Your task to perform on an android device: Go to Android settings Image 0: 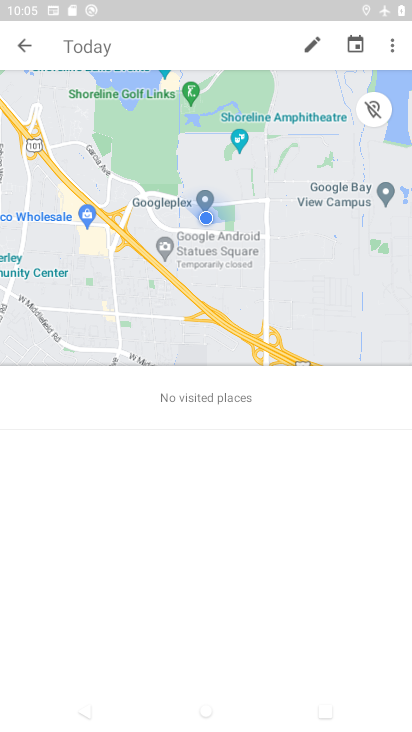
Step 0: press home button
Your task to perform on an android device: Go to Android settings Image 1: 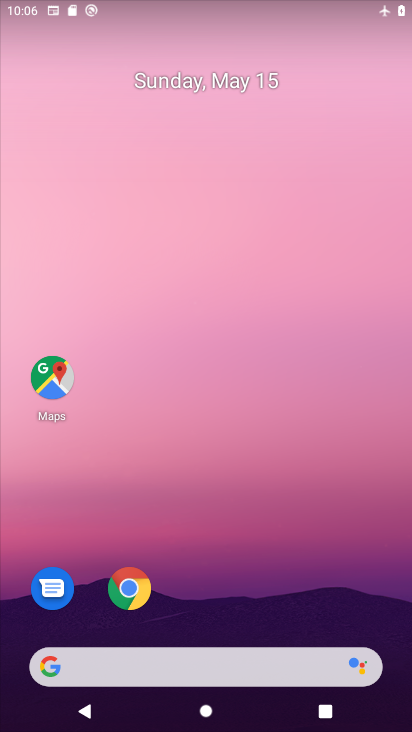
Step 1: drag from (245, 503) to (129, 91)
Your task to perform on an android device: Go to Android settings Image 2: 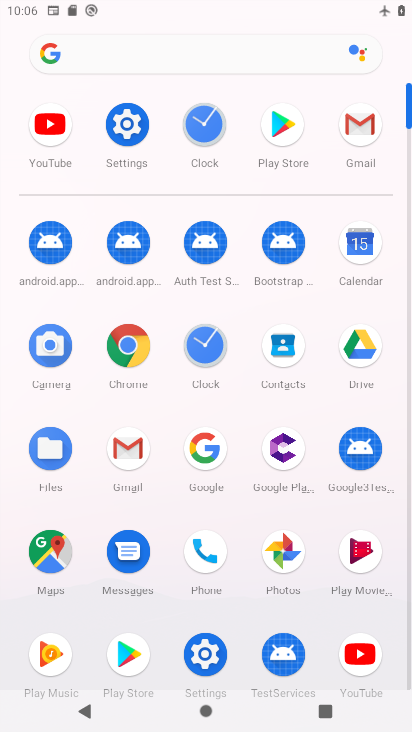
Step 2: click (206, 649)
Your task to perform on an android device: Go to Android settings Image 3: 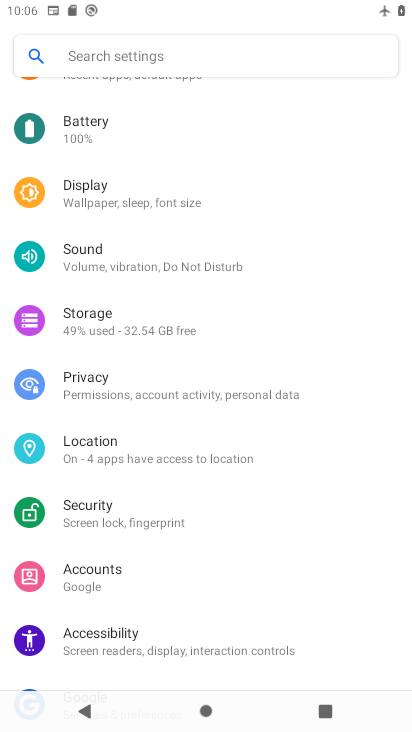
Step 3: drag from (228, 556) to (143, 270)
Your task to perform on an android device: Go to Android settings Image 4: 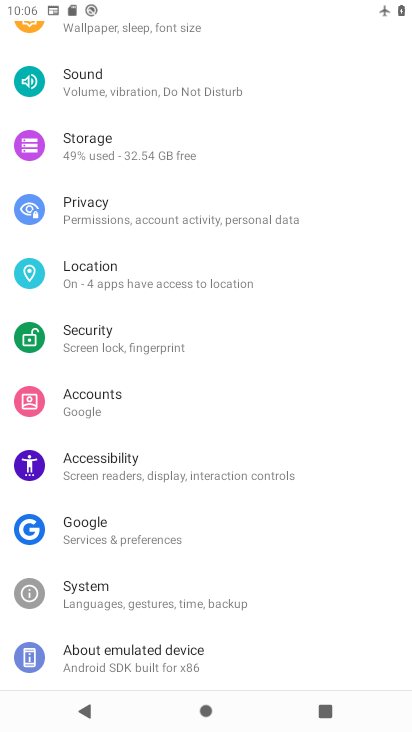
Step 4: click (183, 651)
Your task to perform on an android device: Go to Android settings Image 5: 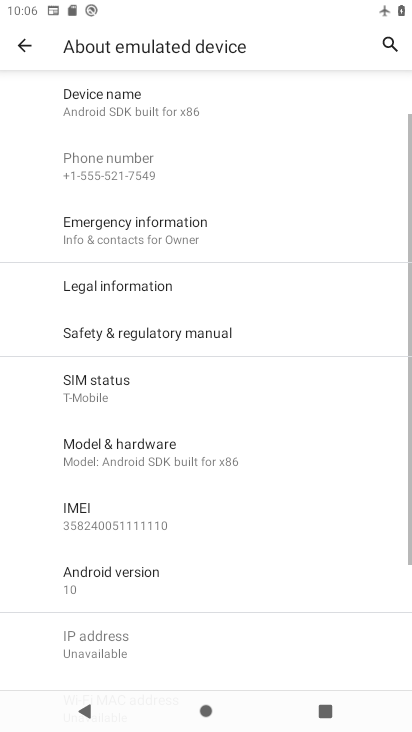
Step 5: click (144, 577)
Your task to perform on an android device: Go to Android settings Image 6: 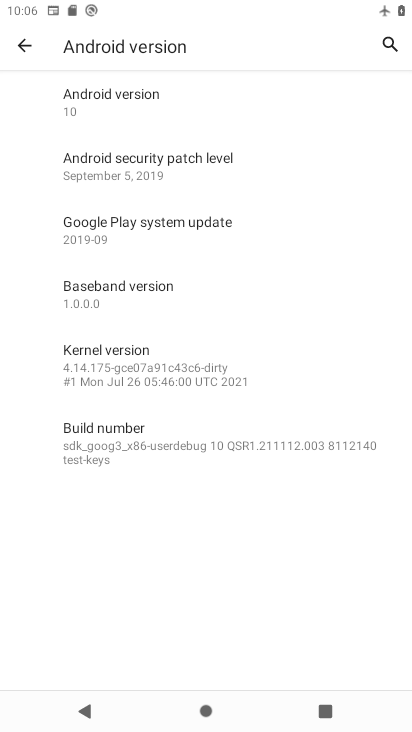
Step 6: task complete